Your task to perform on an android device: What's the weather going to be tomorrow? Image 0: 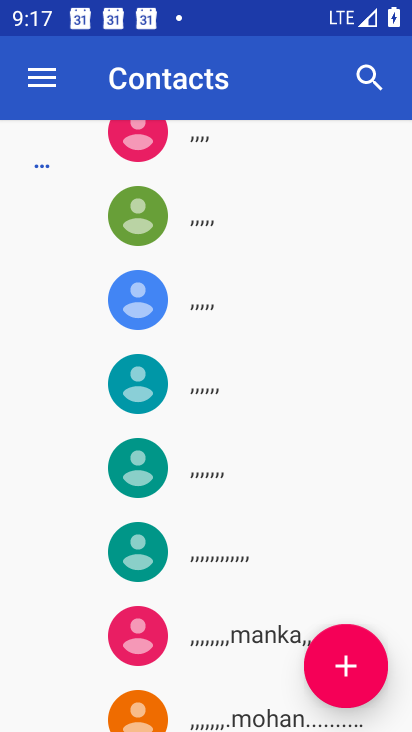
Step 0: press back button
Your task to perform on an android device: What's the weather going to be tomorrow? Image 1: 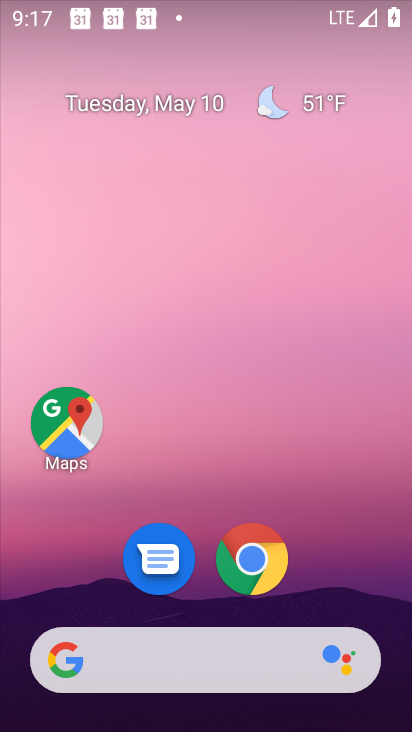
Step 1: drag from (328, 571) to (234, 71)
Your task to perform on an android device: What's the weather going to be tomorrow? Image 2: 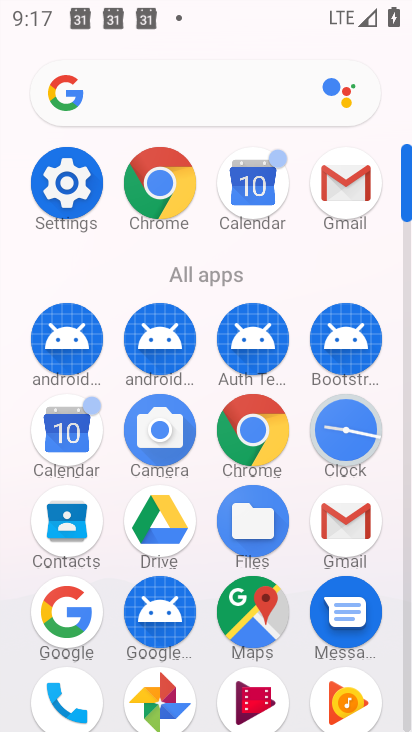
Step 2: click (64, 613)
Your task to perform on an android device: What's the weather going to be tomorrow? Image 3: 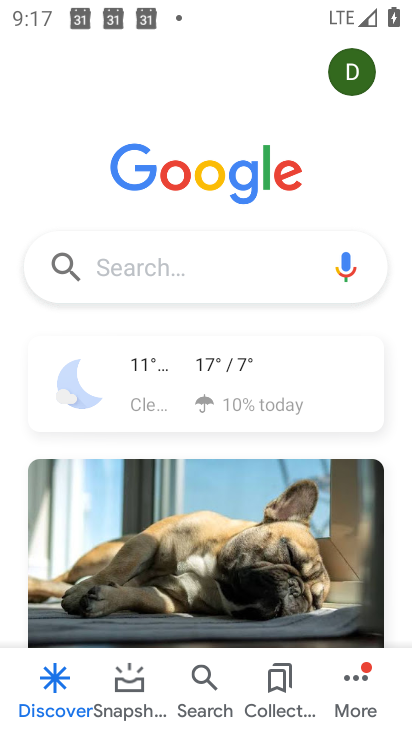
Step 3: click (266, 408)
Your task to perform on an android device: What's the weather going to be tomorrow? Image 4: 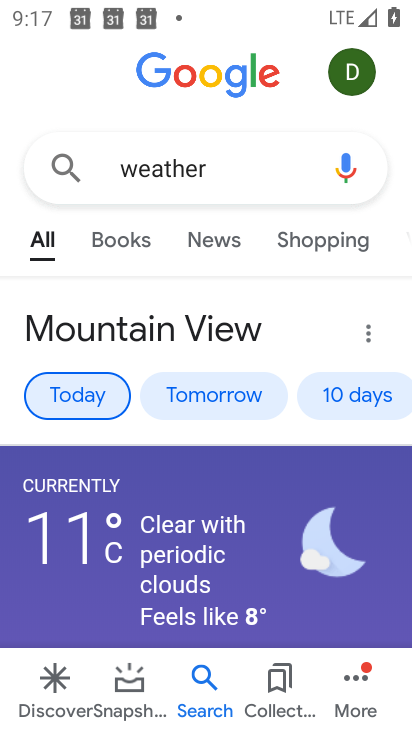
Step 4: click (219, 392)
Your task to perform on an android device: What's the weather going to be tomorrow? Image 5: 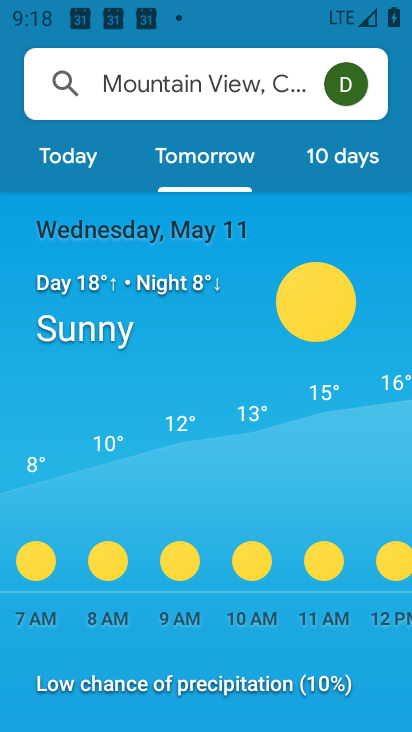
Step 5: task complete